Your task to perform on an android device: toggle show notifications on the lock screen Image 0: 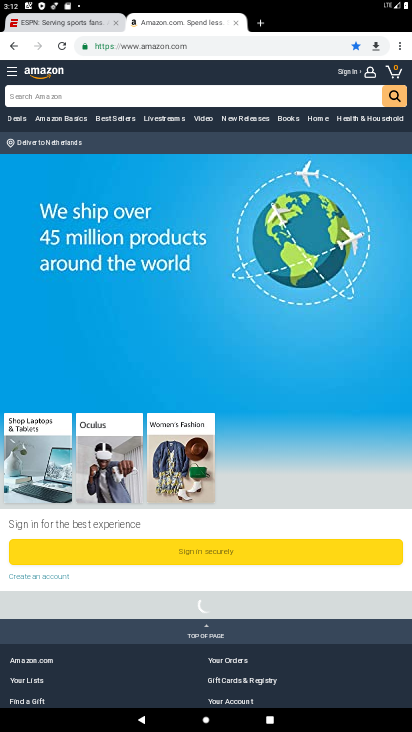
Step 0: press home button
Your task to perform on an android device: toggle show notifications on the lock screen Image 1: 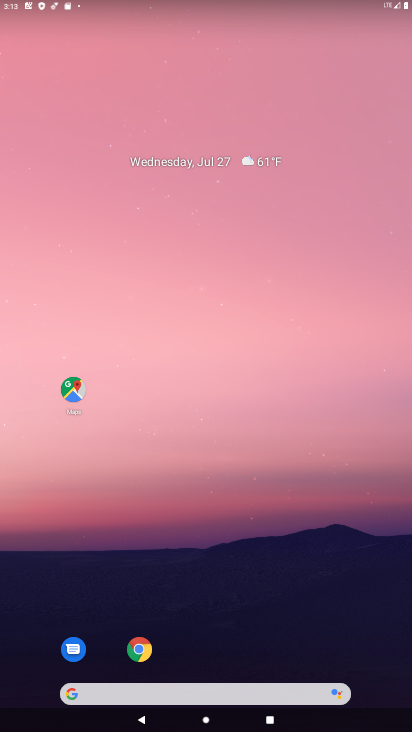
Step 1: drag from (186, 548) to (152, 19)
Your task to perform on an android device: toggle show notifications on the lock screen Image 2: 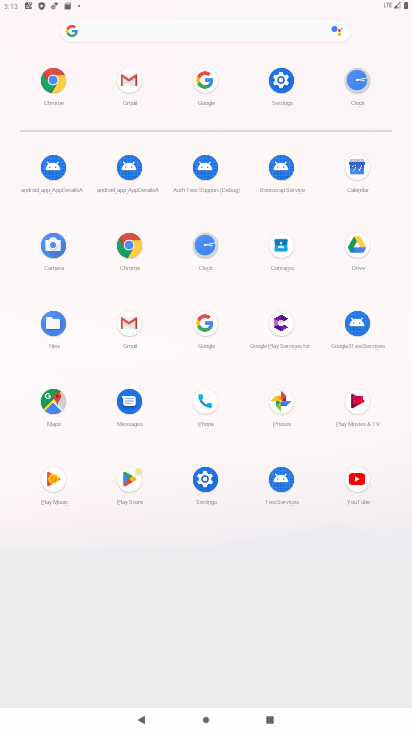
Step 2: click (276, 85)
Your task to perform on an android device: toggle show notifications on the lock screen Image 3: 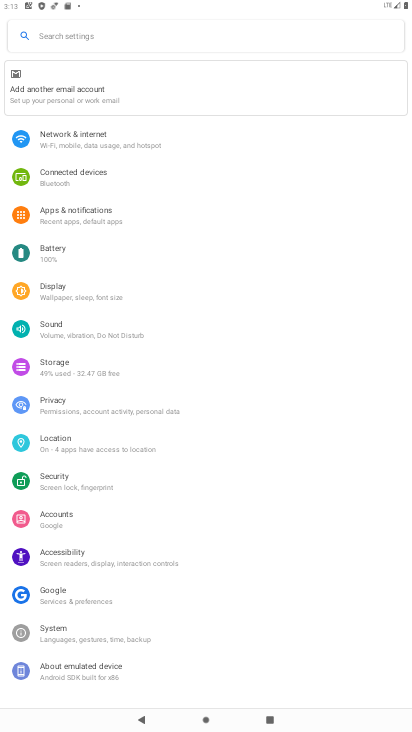
Step 3: click (94, 212)
Your task to perform on an android device: toggle show notifications on the lock screen Image 4: 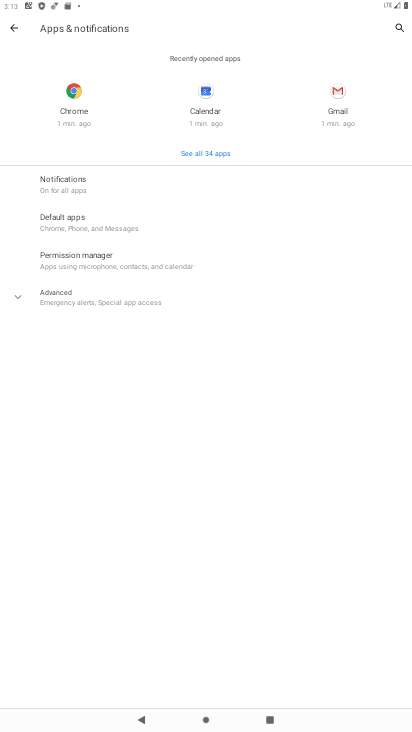
Step 4: click (60, 185)
Your task to perform on an android device: toggle show notifications on the lock screen Image 5: 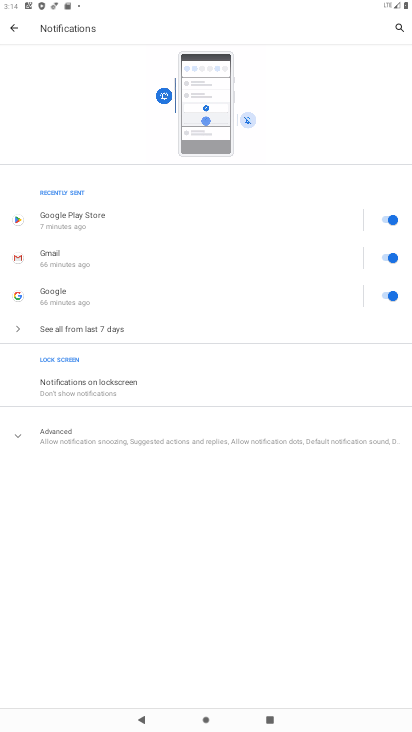
Step 5: click (80, 387)
Your task to perform on an android device: toggle show notifications on the lock screen Image 6: 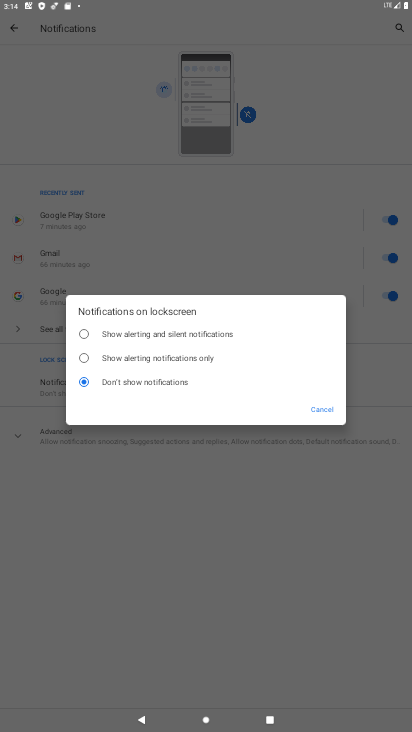
Step 6: click (80, 337)
Your task to perform on an android device: toggle show notifications on the lock screen Image 7: 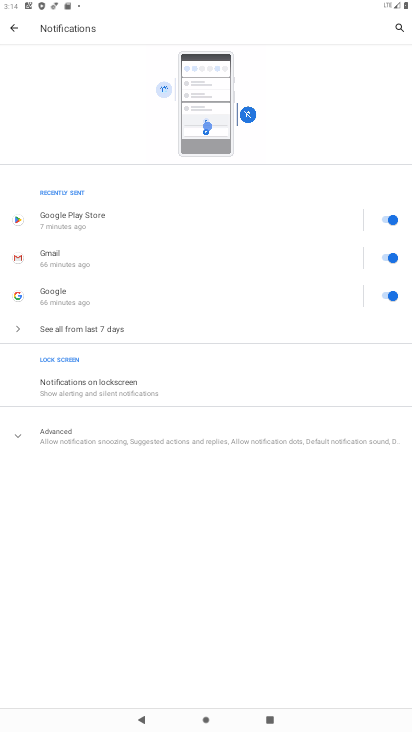
Step 7: task complete